Your task to perform on an android device: open a bookmark in the chrome app Image 0: 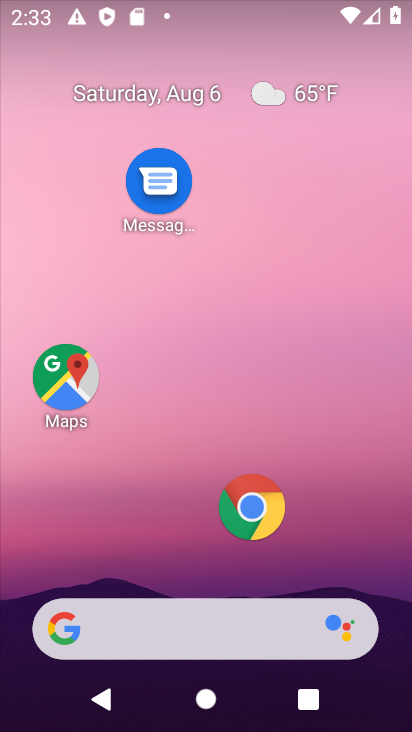
Step 0: click (261, 497)
Your task to perform on an android device: open a bookmark in the chrome app Image 1: 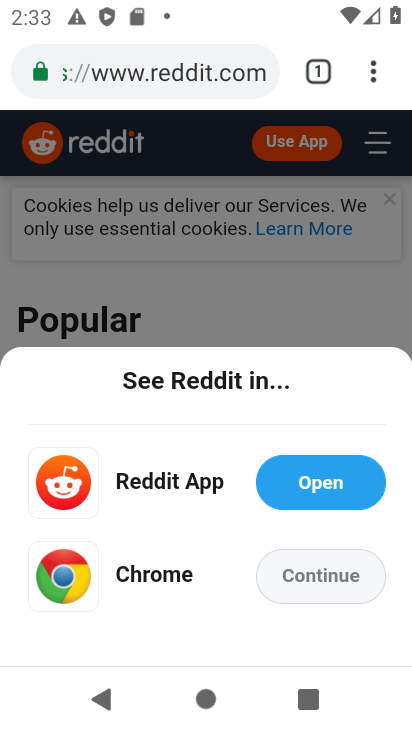
Step 1: click (374, 68)
Your task to perform on an android device: open a bookmark in the chrome app Image 2: 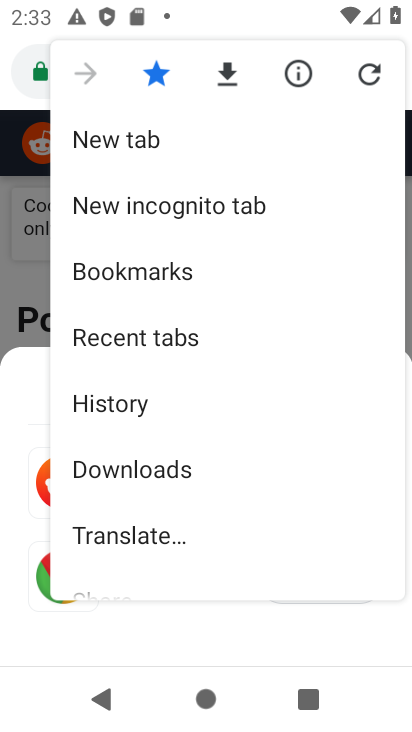
Step 2: click (151, 281)
Your task to perform on an android device: open a bookmark in the chrome app Image 3: 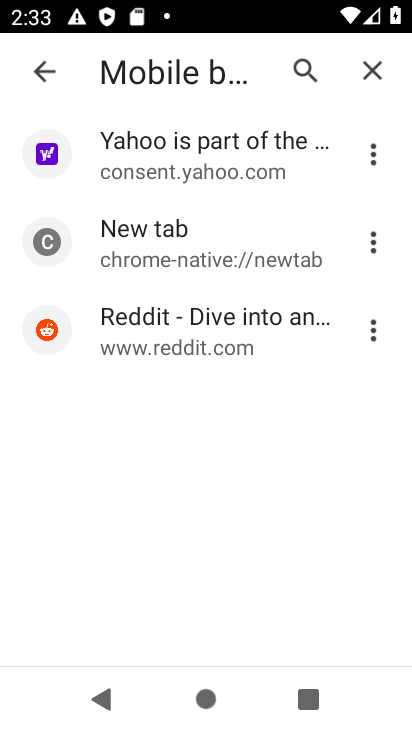
Step 3: click (156, 261)
Your task to perform on an android device: open a bookmark in the chrome app Image 4: 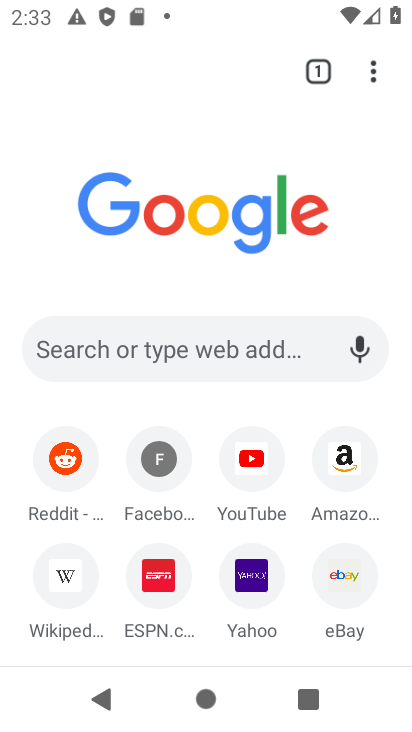
Step 4: task complete